Your task to perform on an android device: find photos in the google photos app Image 0: 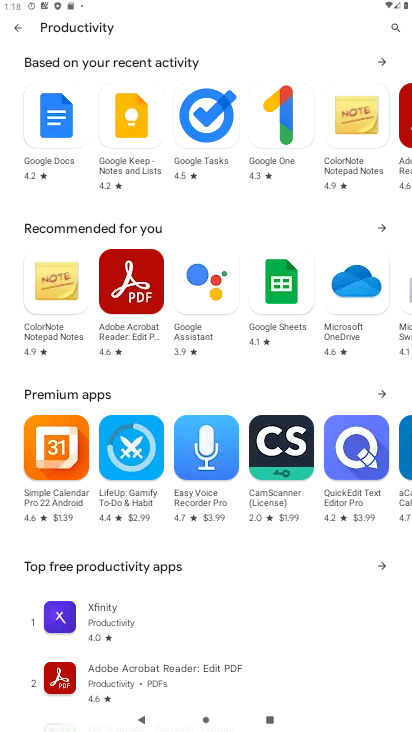
Step 0: press home button
Your task to perform on an android device: find photos in the google photos app Image 1: 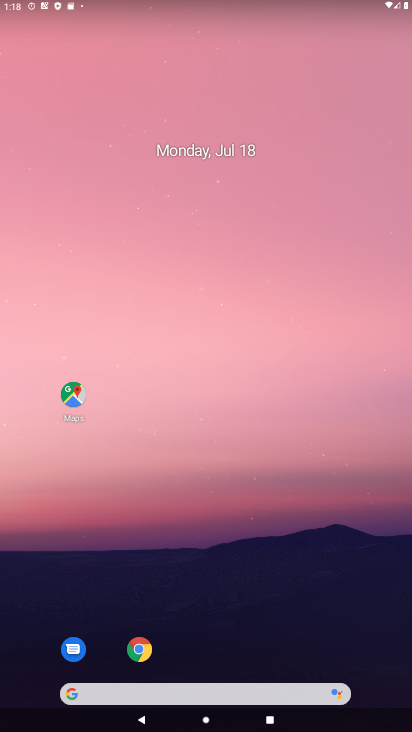
Step 1: drag from (230, 663) to (174, 92)
Your task to perform on an android device: find photos in the google photos app Image 2: 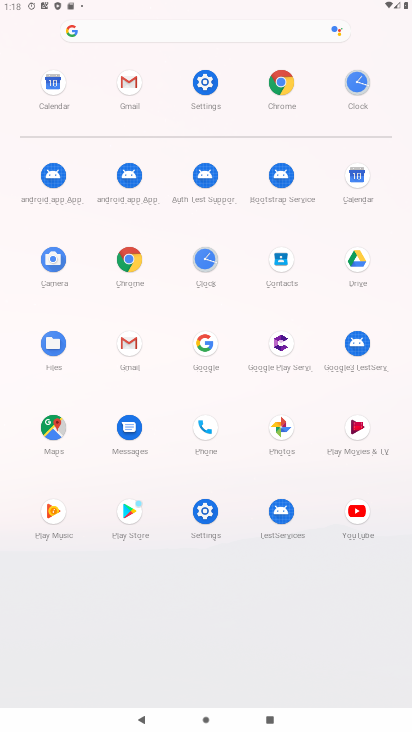
Step 2: click (291, 412)
Your task to perform on an android device: find photos in the google photos app Image 3: 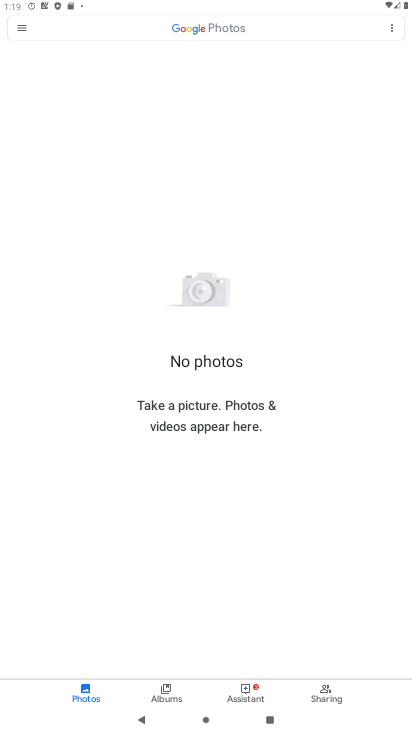
Step 3: task complete